Your task to perform on an android device: turn off priority inbox in the gmail app Image 0: 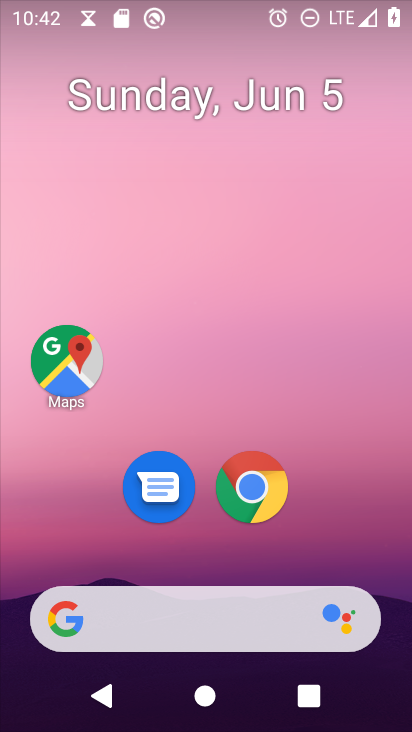
Step 0: drag from (311, 538) to (324, 239)
Your task to perform on an android device: turn off priority inbox in the gmail app Image 1: 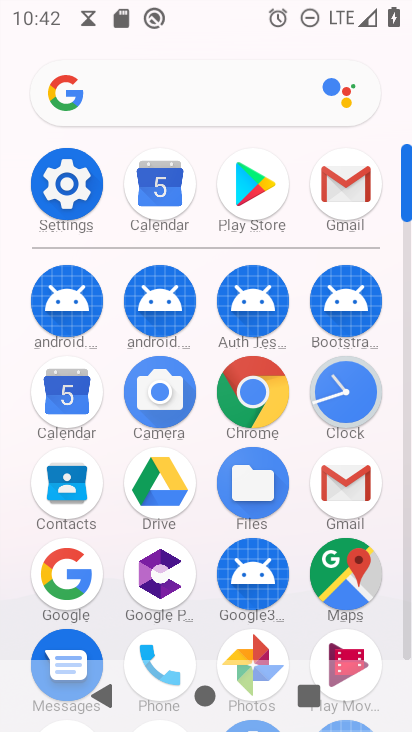
Step 1: click (334, 482)
Your task to perform on an android device: turn off priority inbox in the gmail app Image 2: 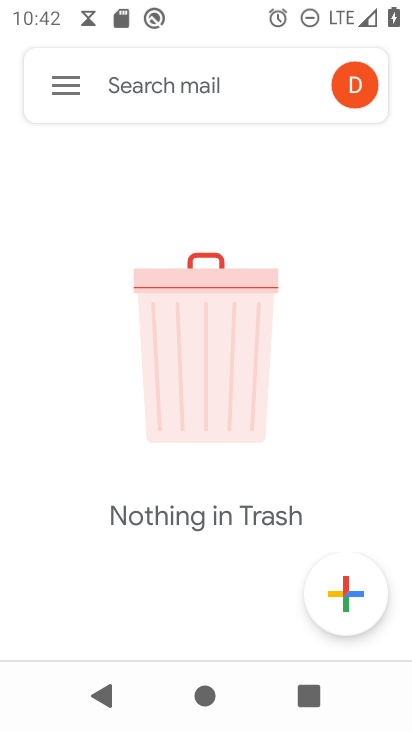
Step 2: click (50, 80)
Your task to perform on an android device: turn off priority inbox in the gmail app Image 3: 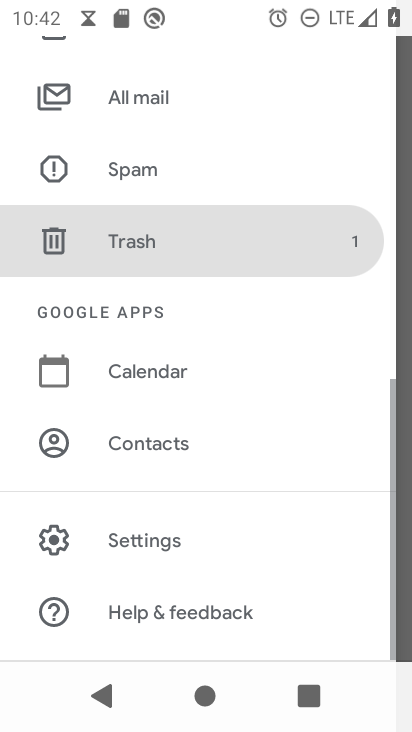
Step 3: click (122, 552)
Your task to perform on an android device: turn off priority inbox in the gmail app Image 4: 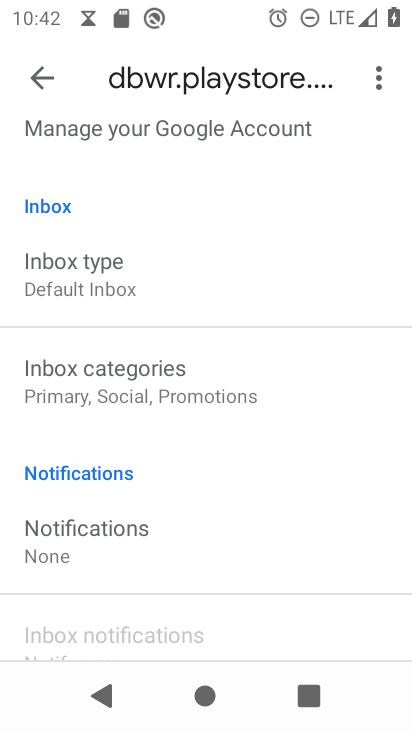
Step 4: click (152, 278)
Your task to perform on an android device: turn off priority inbox in the gmail app Image 5: 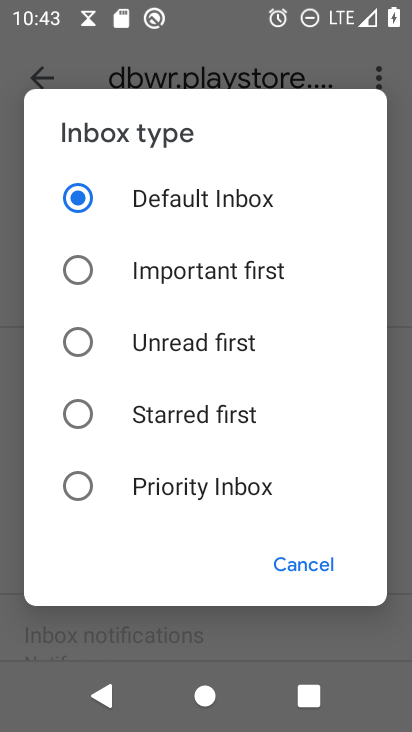
Step 5: task complete